Your task to perform on an android device: open chrome privacy settings Image 0: 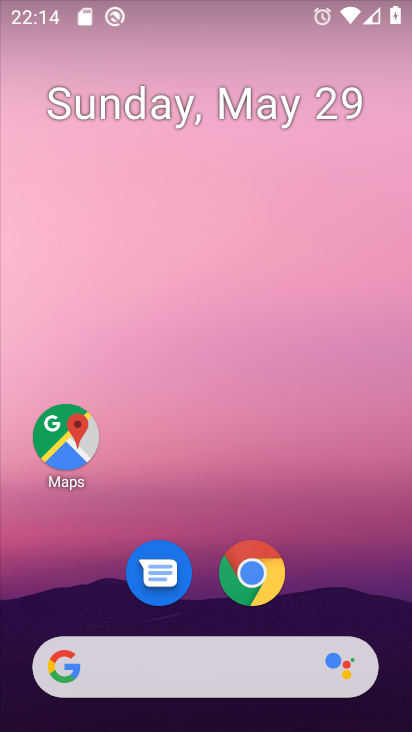
Step 0: click (250, 574)
Your task to perform on an android device: open chrome privacy settings Image 1: 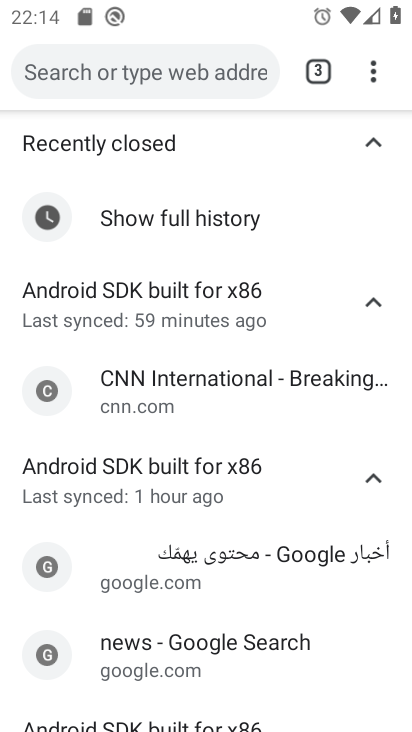
Step 1: click (372, 70)
Your task to perform on an android device: open chrome privacy settings Image 2: 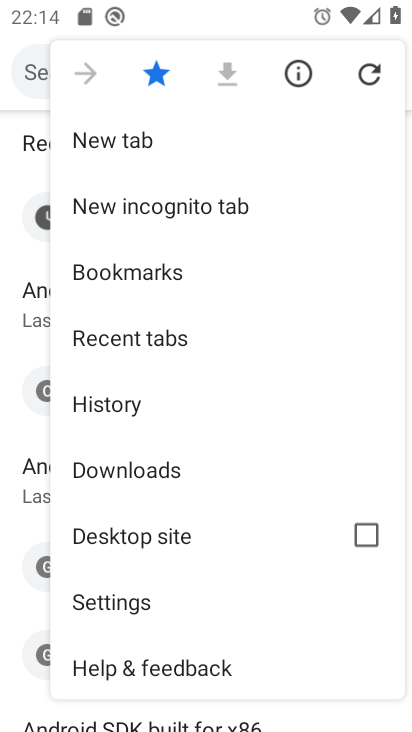
Step 2: click (144, 604)
Your task to perform on an android device: open chrome privacy settings Image 3: 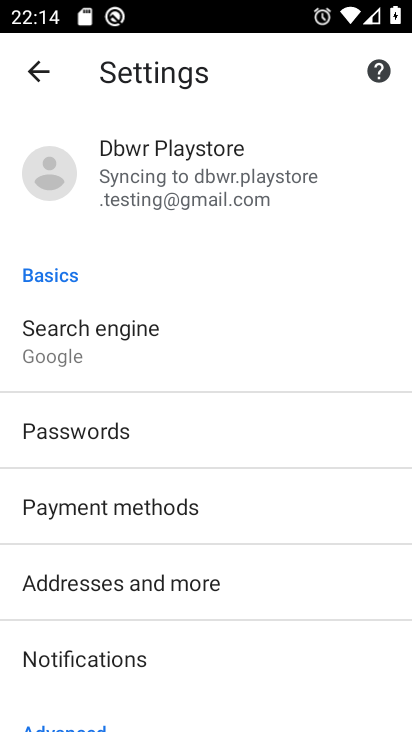
Step 3: drag from (227, 528) to (282, 169)
Your task to perform on an android device: open chrome privacy settings Image 4: 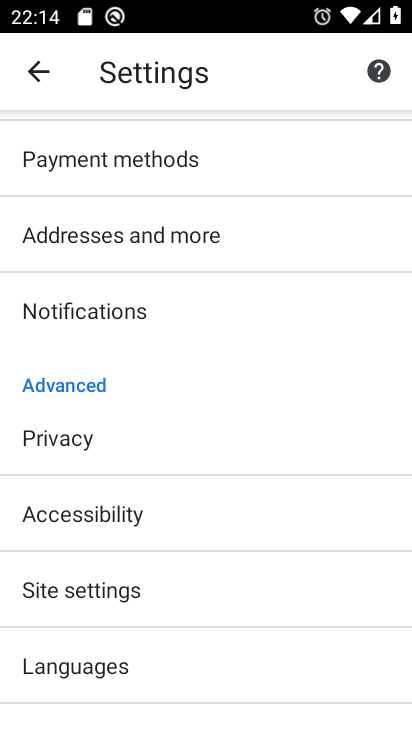
Step 4: click (169, 599)
Your task to perform on an android device: open chrome privacy settings Image 5: 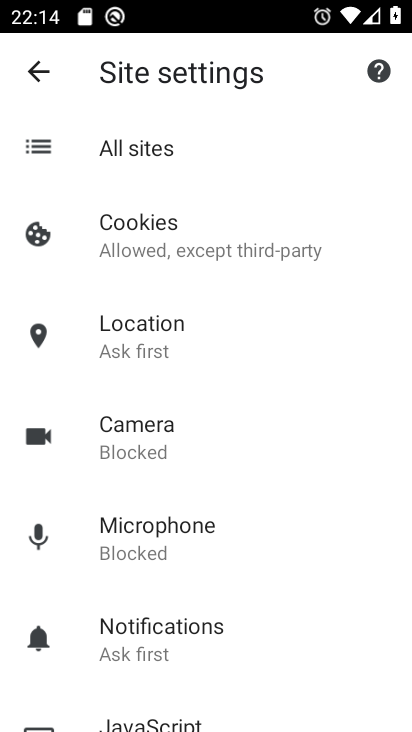
Step 5: click (44, 66)
Your task to perform on an android device: open chrome privacy settings Image 6: 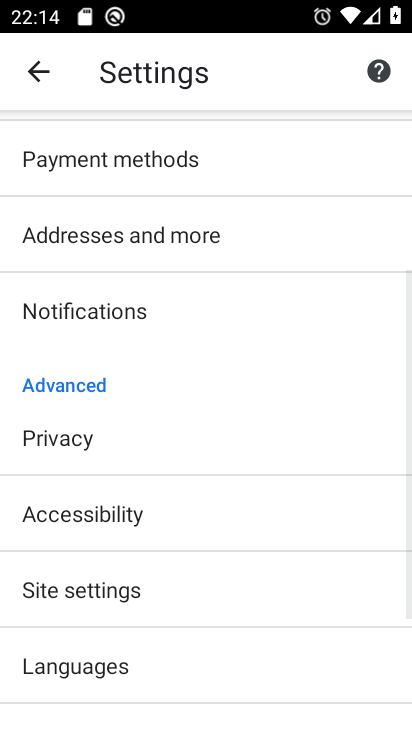
Step 6: click (83, 436)
Your task to perform on an android device: open chrome privacy settings Image 7: 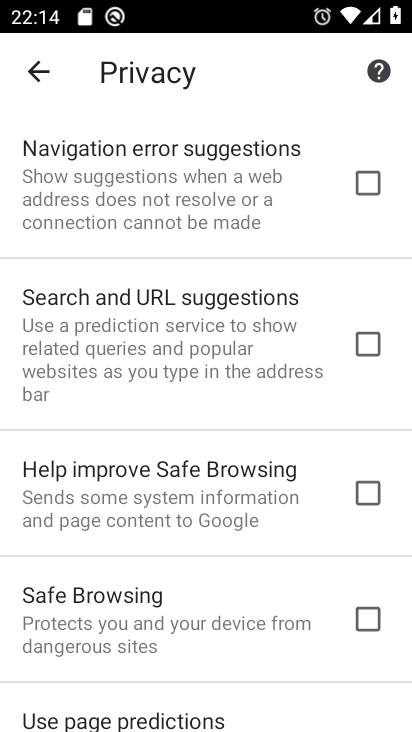
Step 7: task complete